Your task to perform on an android device: Show me popular games on the Play Store Image 0: 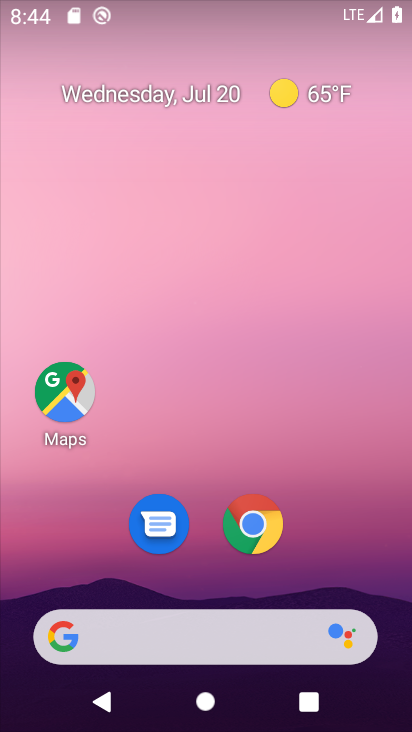
Step 0: drag from (325, 534) to (360, 89)
Your task to perform on an android device: Show me popular games on the Play Store Image 1: 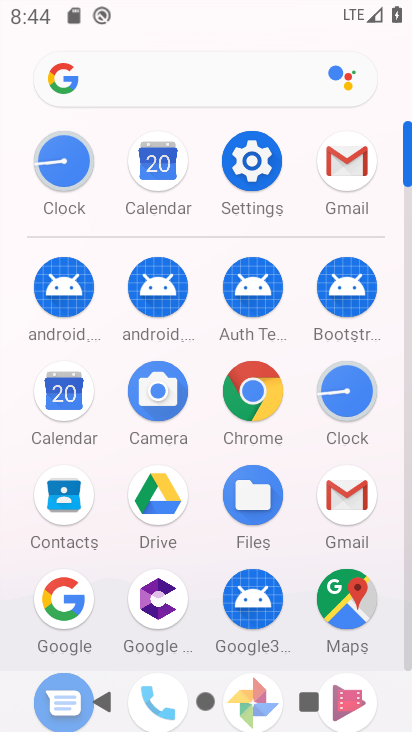
Step 1: drag from (209, 530) to (221, 163)
Your task to perform on an android device: Show me popular games on the Play Store Image 2: 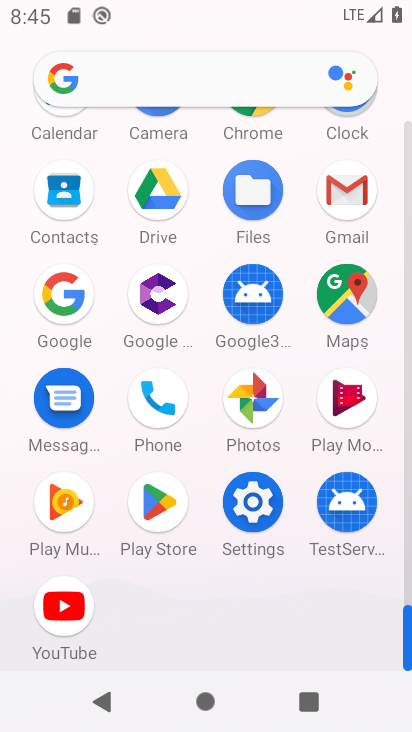
Step 2: click (152, 502)
Your task to perform on an android device: Show me popular games on the Play Store Image 3: 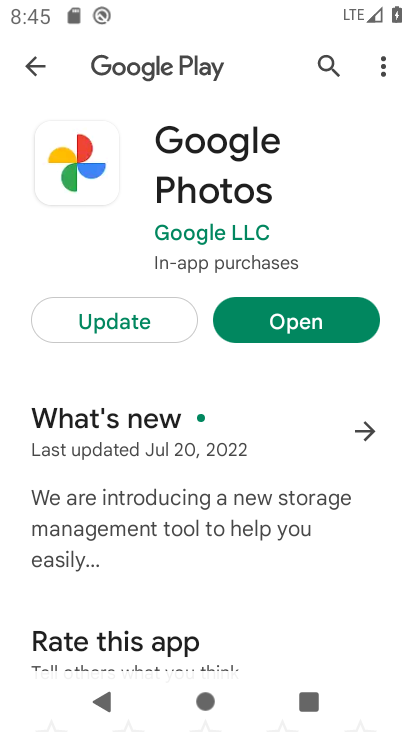
Step 3: click (33, 60)
Your task to perform on an android device: Show me popular games on the Play Store Image 4: 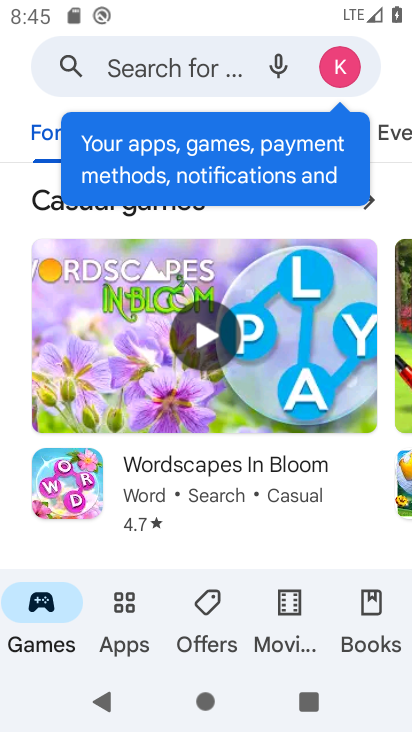
Step 4: drag from (303, 495) to (319, 134)
Your task to perform on an android device: Show me popular games on the Play Store Image 5: 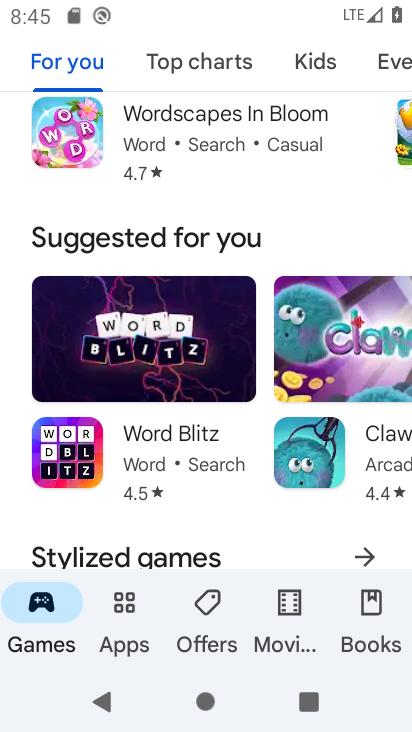
Step 5: drag from (283, 357) to (287, 122)
Your task to perform on an android device: Show me popular games on the Play Store Image 6: 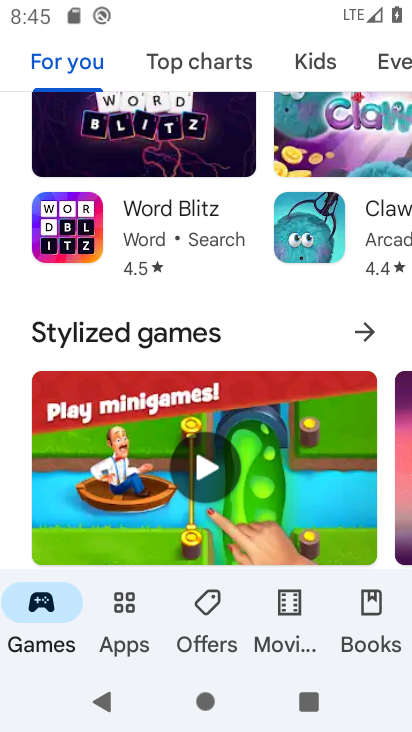
Step 6: drag from (238, 462) to (264, 206)
Your task to perform on an android device: Show me popular games on the Play Store Image 7: 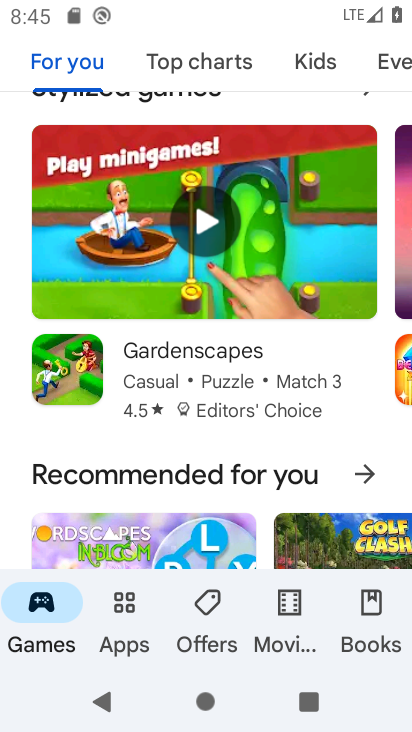
Step 7: drag from (272, 432) to (296, 148)
Your task to perform on an android device: Show me popular games on the Play Store Image 8: 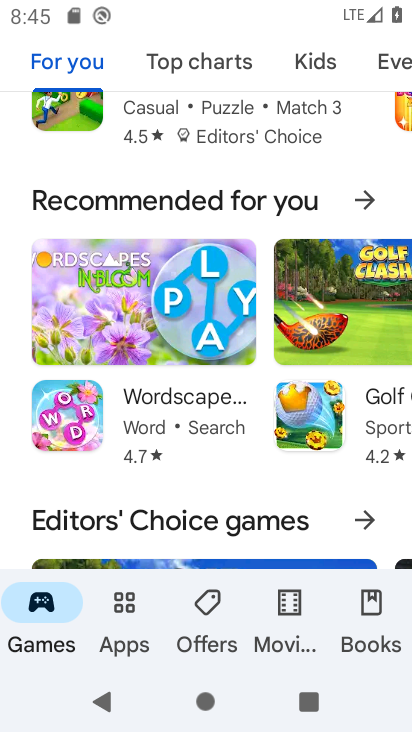
Step 8: drag from (267, 164) to (270, 522)
Your task to perform on an android device: Show me popular games on the Play Store Image 9: 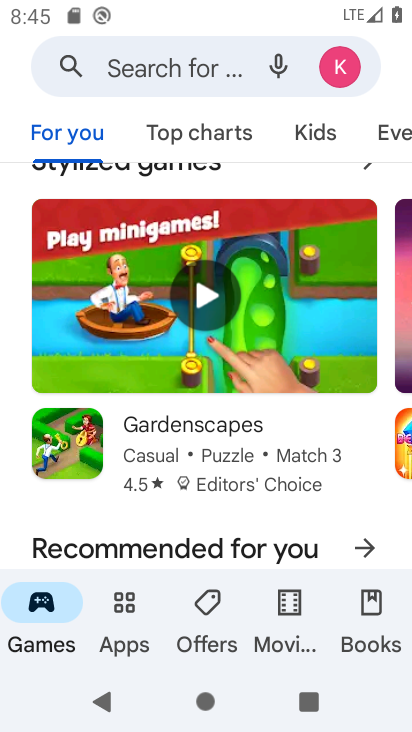
Step 9: drag from (266, 253) to (257, 596)
Your task to perform on an android device: Show me popular games on the Play Store Image 10: 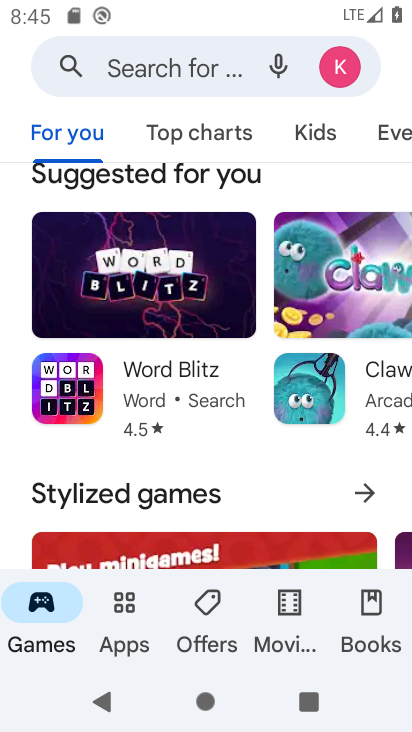
Step 10: drag from (240, 256) to (235, 590)
Your task to perform on an android device: Show me popular games on the Play Store Image 11: 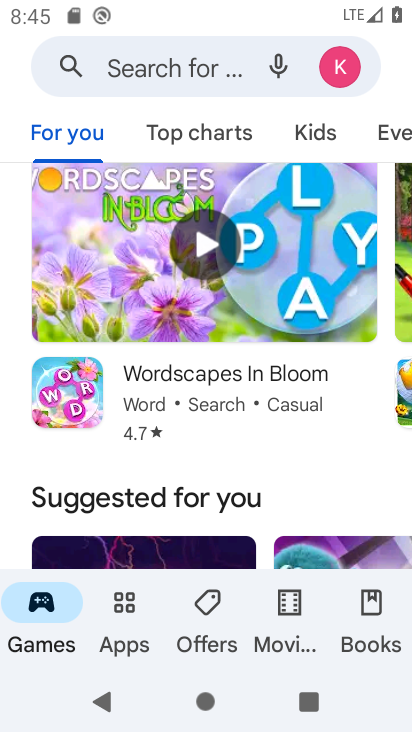
Step 11: drag from (255, 282) to (252, 545)
Your task to perform on an android device: Show me popular games on the Play Store Image 12: 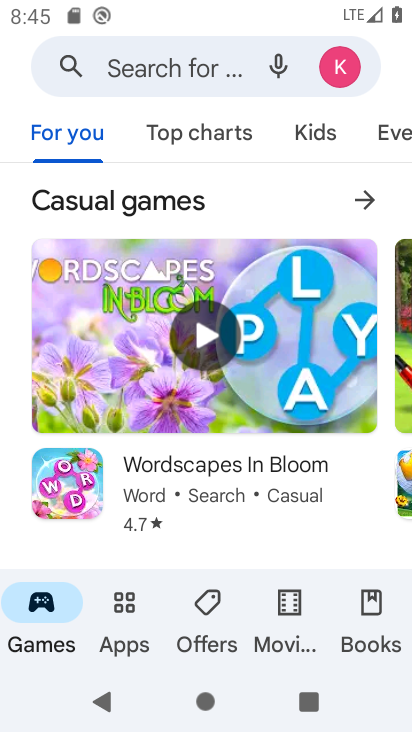
Step 12: click (206, 62)
Your task to perform on an android device: Show me popular games on the Play Store Image 13: 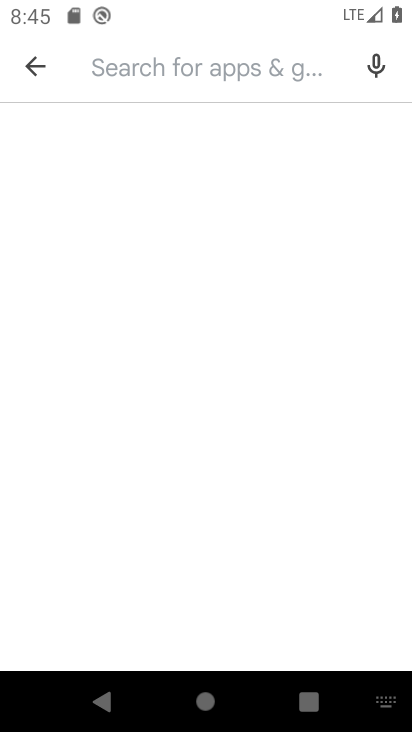
Step 13: type "popular games"
Your task to perform on an android device: Show me popular games on the Play Store Image 14: 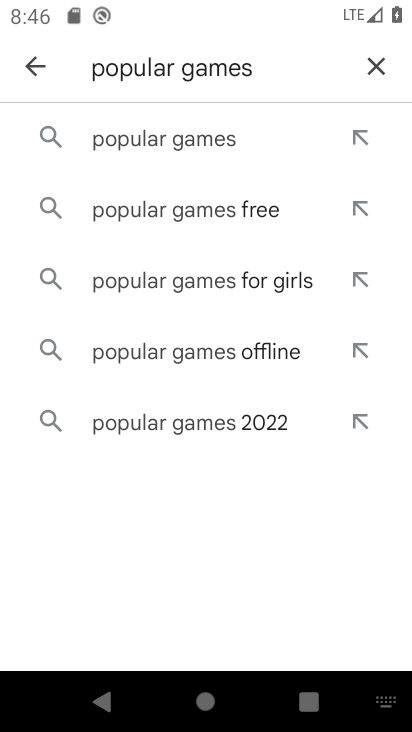
Step 14: click (230, 138)
Your task to perform on an android device: Show me popular games on the Play Store Image 15: 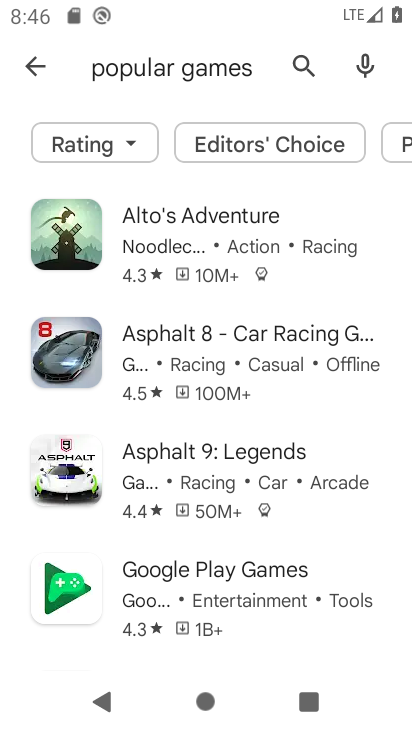
Step 15: task complete